Your task to perform on an android device: change the upload size in google photos Image 0: 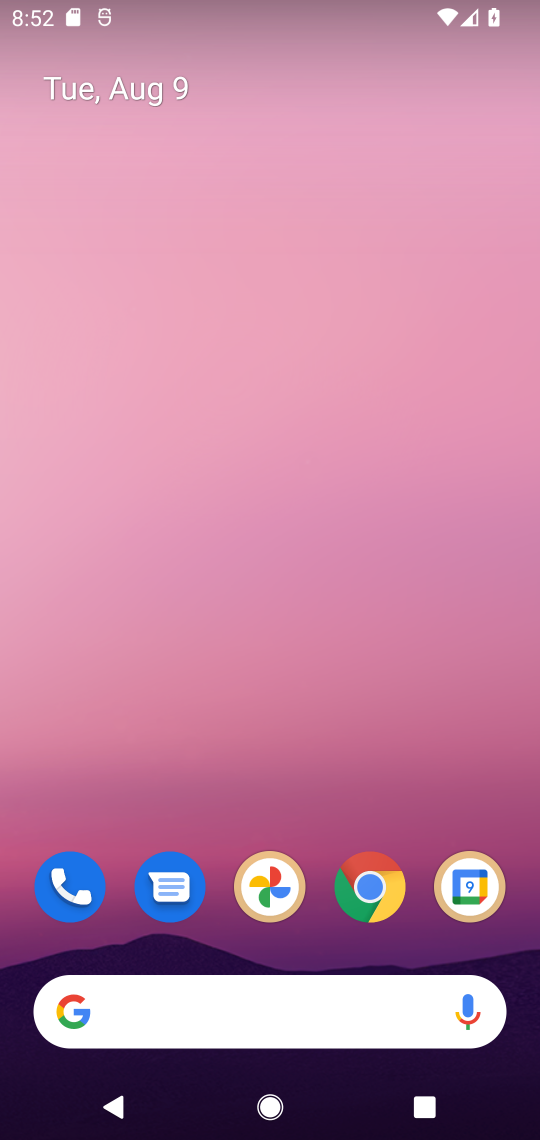
Step 0: click (280, 897)
Your task to perform on an android device: change the upload size in google photos Image 1: 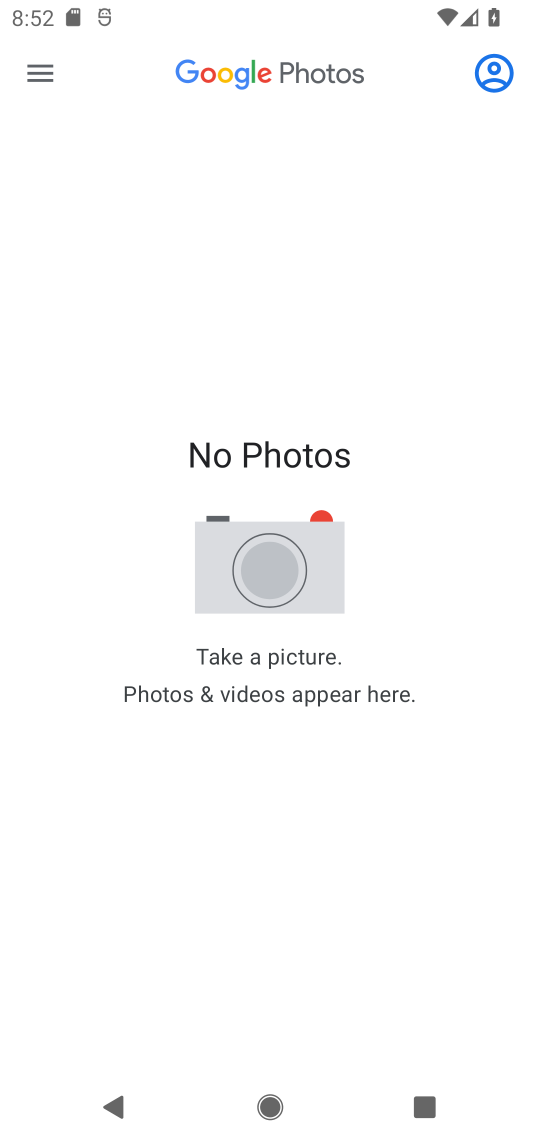
Step 1: click (63, 73)
Your task to perform on an android device: change the upload size in google photos Image 2: 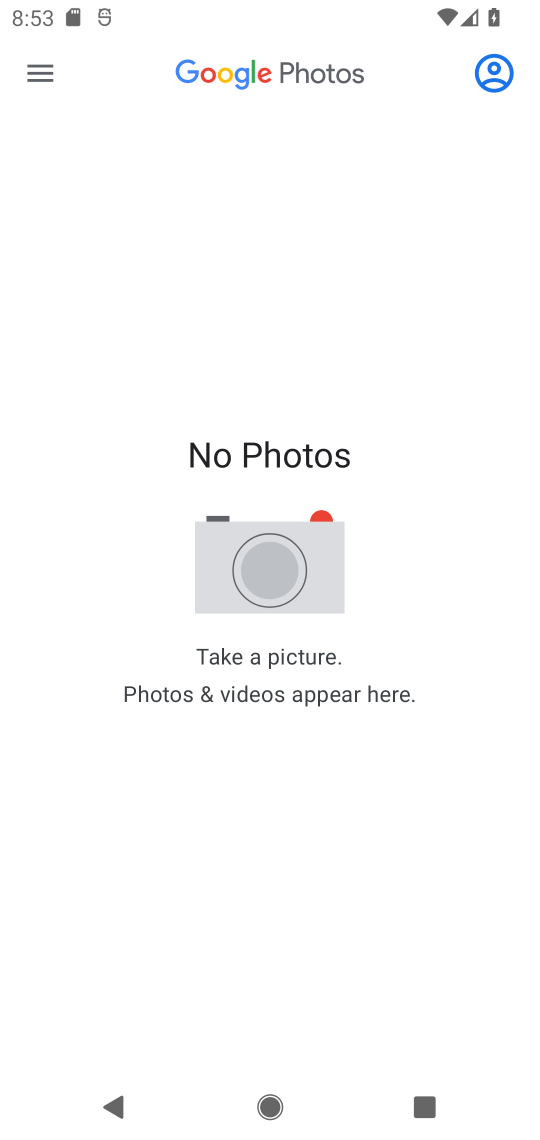
Step 2: click (42, 66)
Your task to perform on an android device: change the upload size in google photos Image 3: 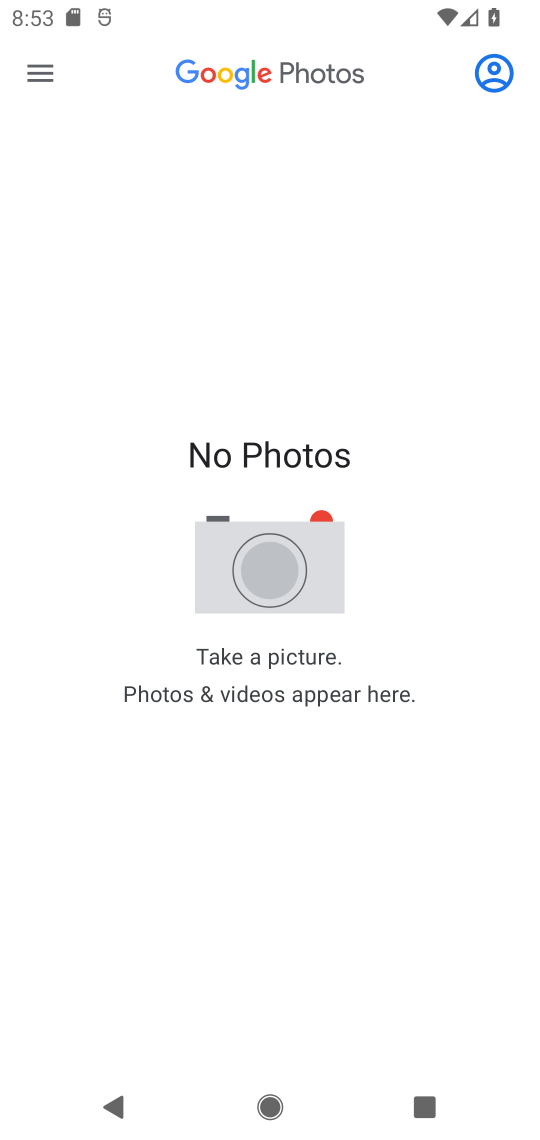
Step 3: click (48, 75)
Your task to perform on an android device: change the upload size in google photos Image 4: 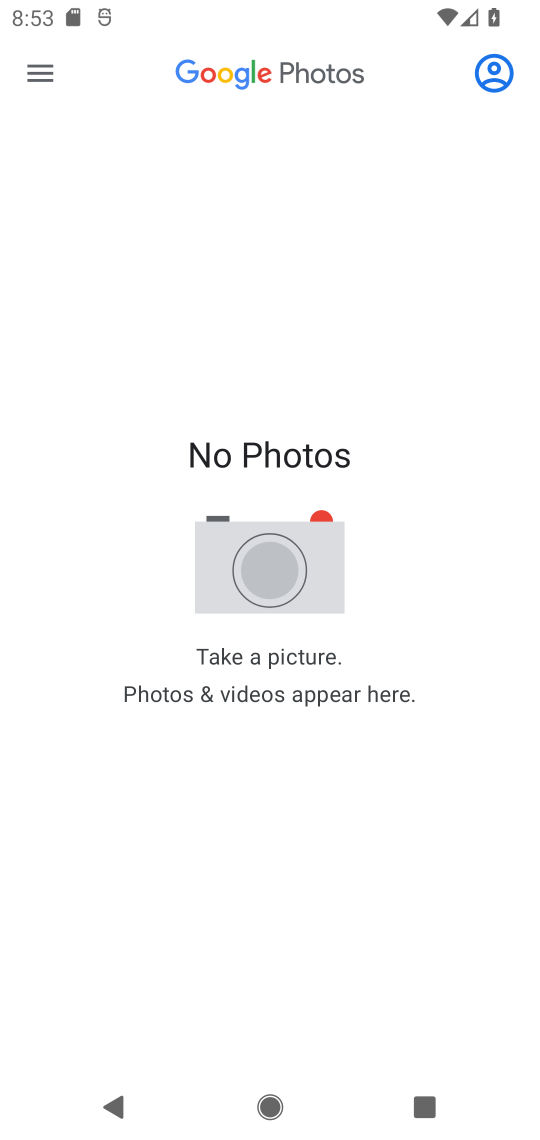
Step 4: click (57, 60)
Your task to perform on an android device: change the upload size in google photos Image 5: 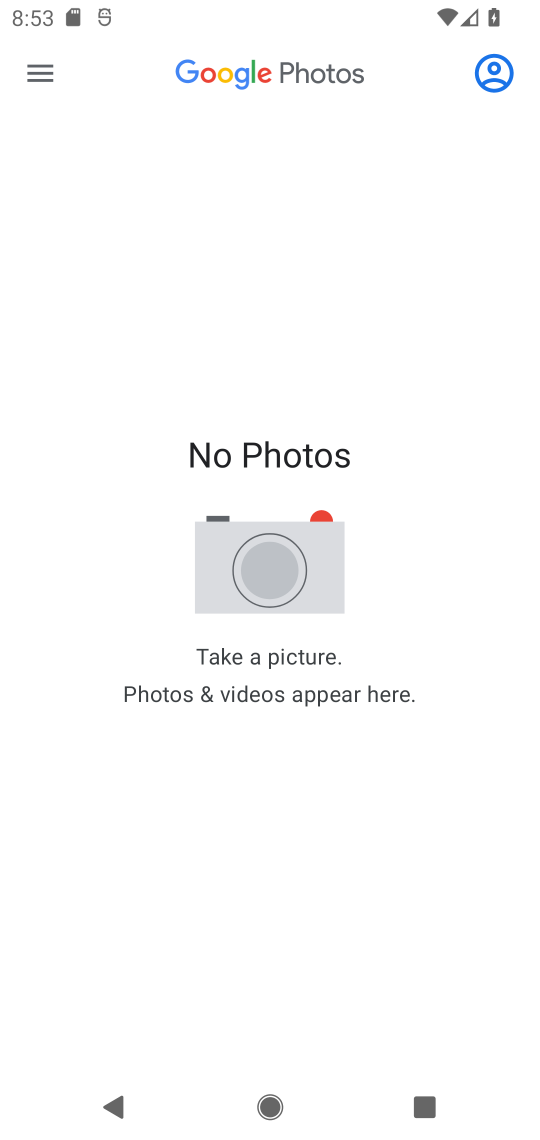
Step 5: click (50, 81)
Your task to perform on an android device: change the upload size in google photos Image 6: 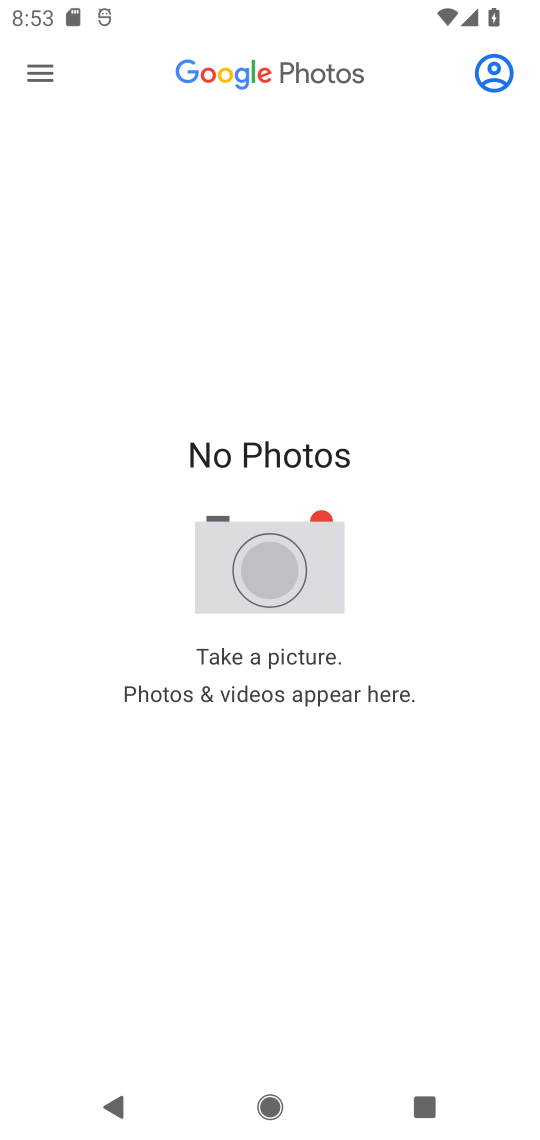
Step 6: click (50, 81)
Your task to perform on an android device: change the upload size in google photos Image 7: 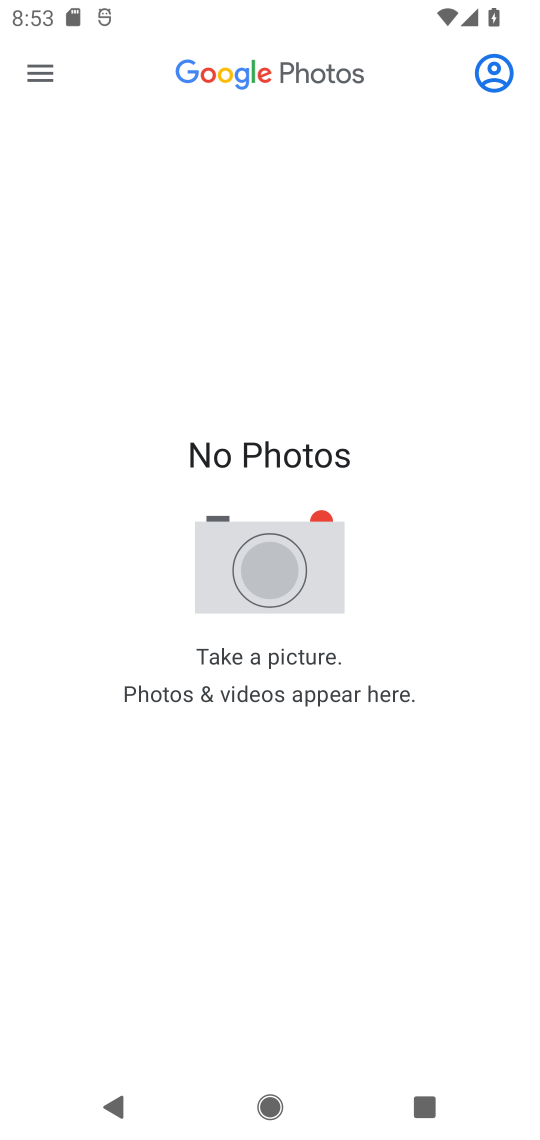
Step 7: click (46, 85)
Your task to perform on an android device: change the upload size in google photos Image 8: 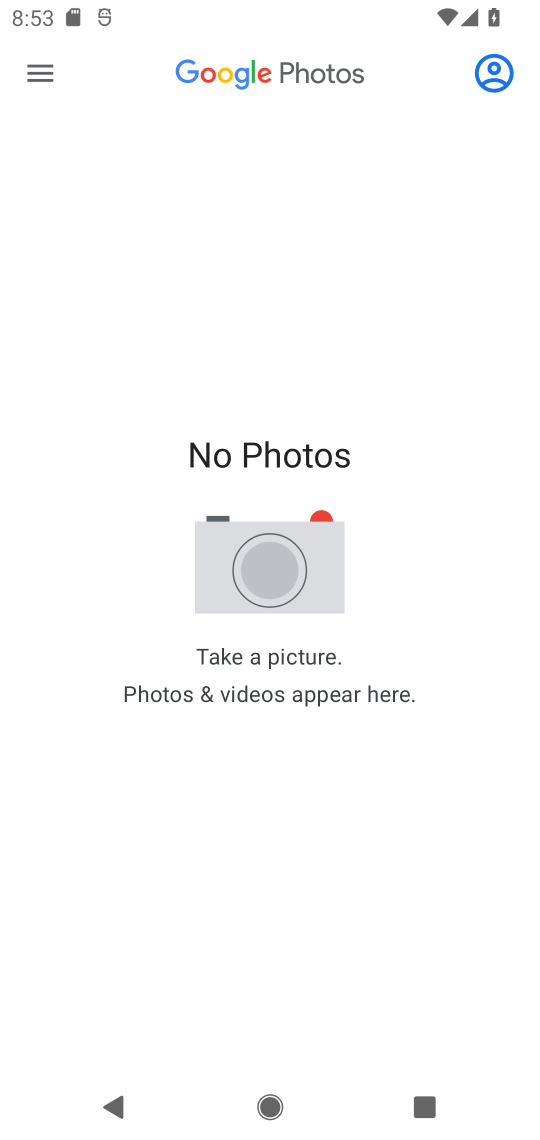
Step 8: click (46, 85)
Your task to perform on an android device: change the upload size in google photos Image 9: 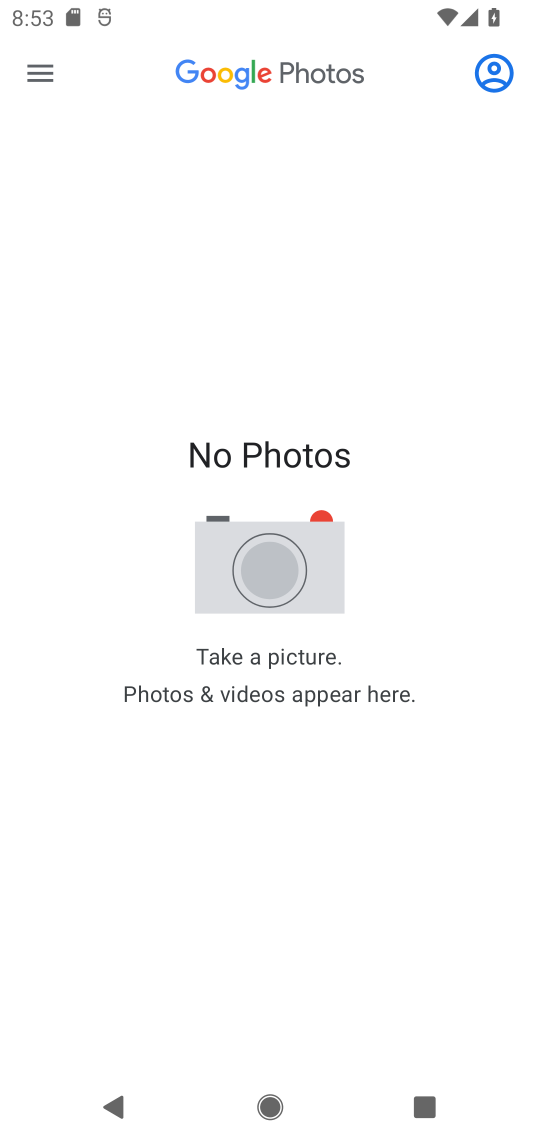
Step 9: click (40, 65)
Your task to perform on an android device: change the upload size in google photos Image 10: 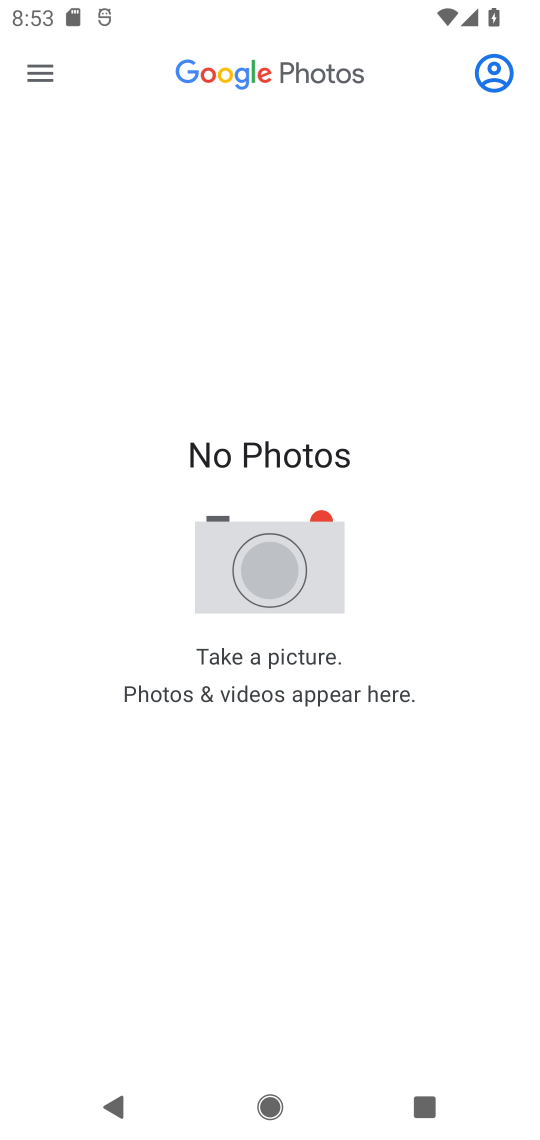
Step 10: click (508, 79)
Your task to perform on an android device: change the upload size in google photos Image 11: 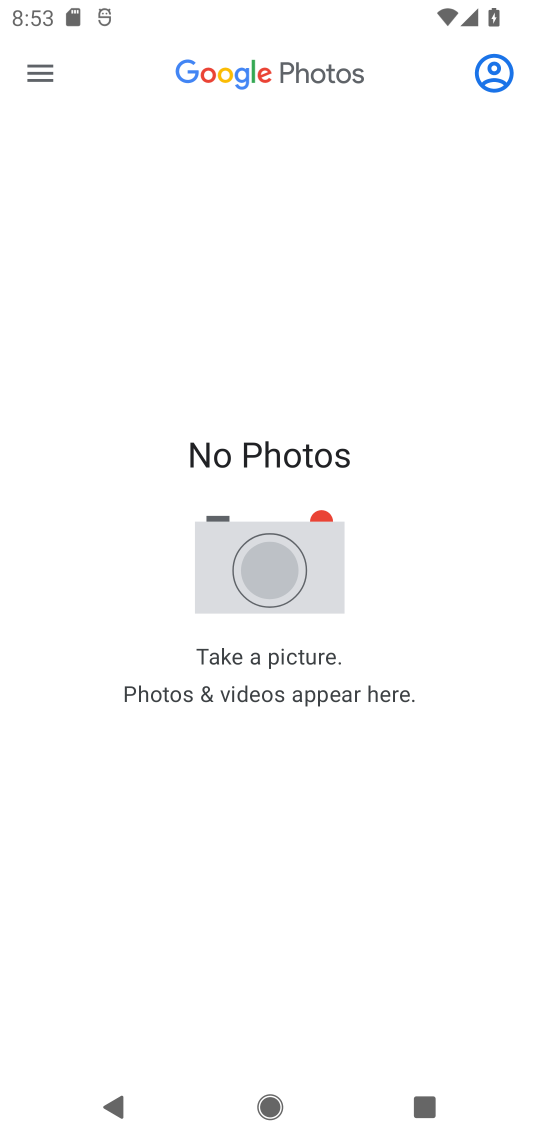
Step 11: click (28, 73)
Your task to perform on an android device: change the upload size in google photos Image 12: 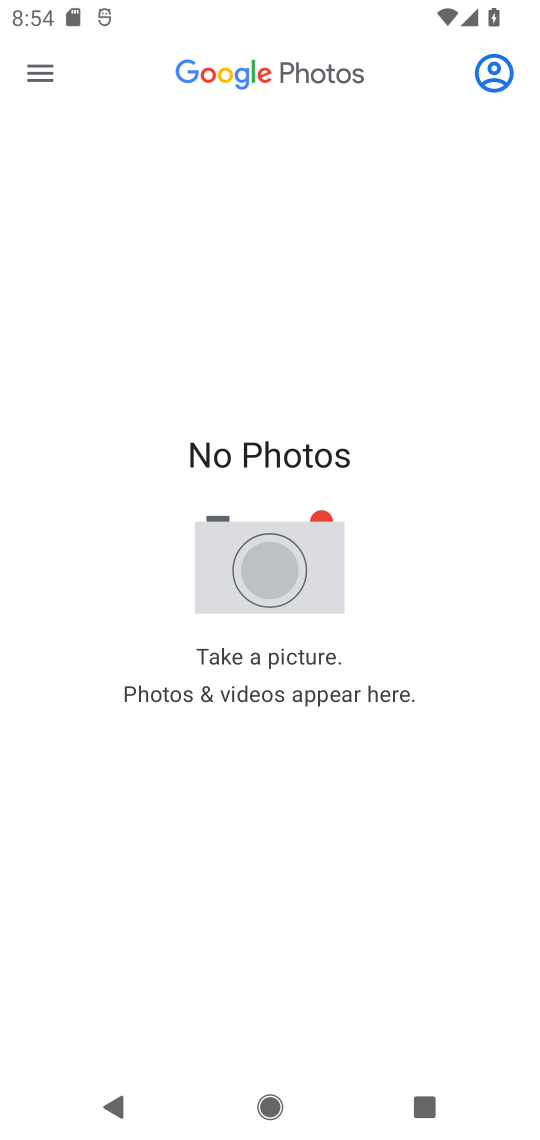
Step 12: click (41, 82)
Your task to perform on an android device: change the upload size in google photos Image 13: 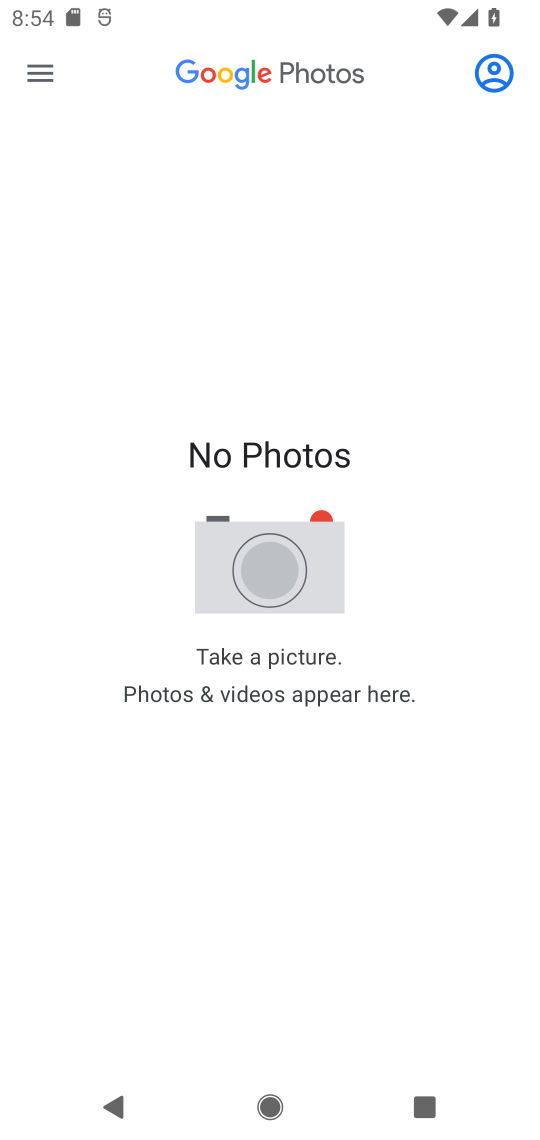
Step 13: task complete